Your task to perform on an android device: Open Amazon Image 0: 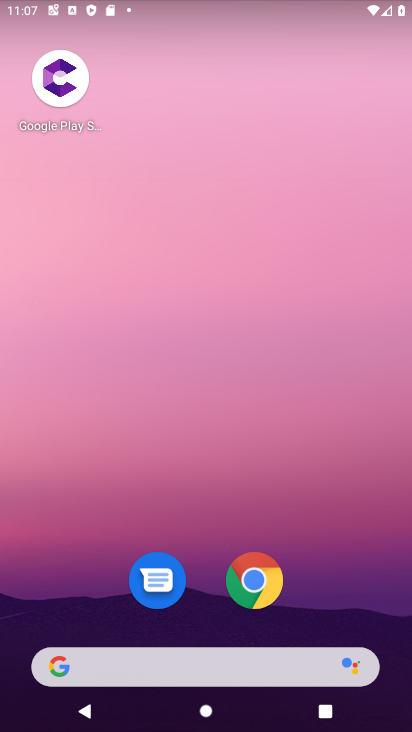
Step 0: drag from (208, 632) to (219, 163)
Your task to perform on an android device: Open Amazon Image 1: 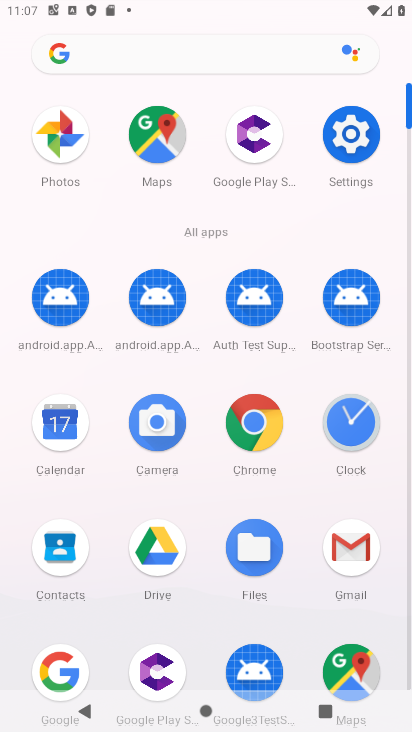
Step 1: click (259, 449)
Your task to perform on an android device: Open Amazon Image 2: 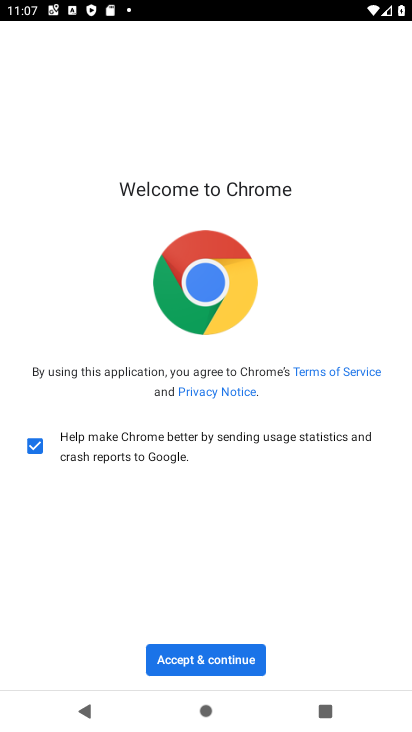
Step 2: click (240, 663)
Your task to perform on an android device: Open Amazon Image 3: 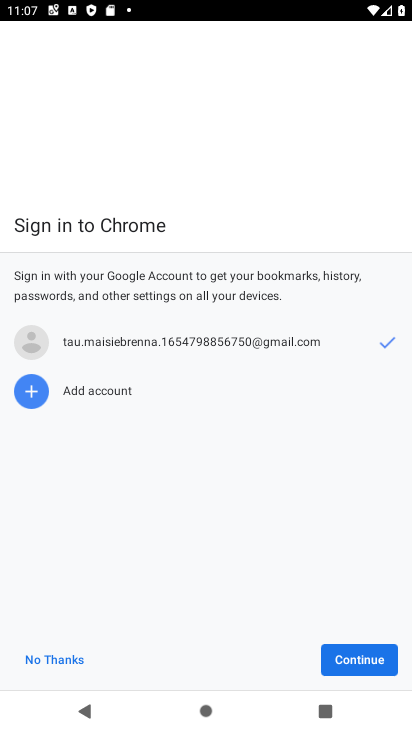
Step 3: click (337, 649)
Your task to perform on an android device: Open Amazon Image 4: 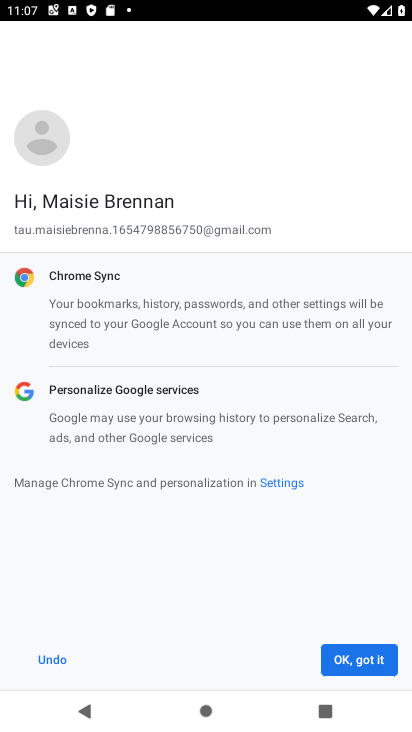
Step 4: click (366, 654)
Your task to perform on an android device: Open Amazon Image 5: 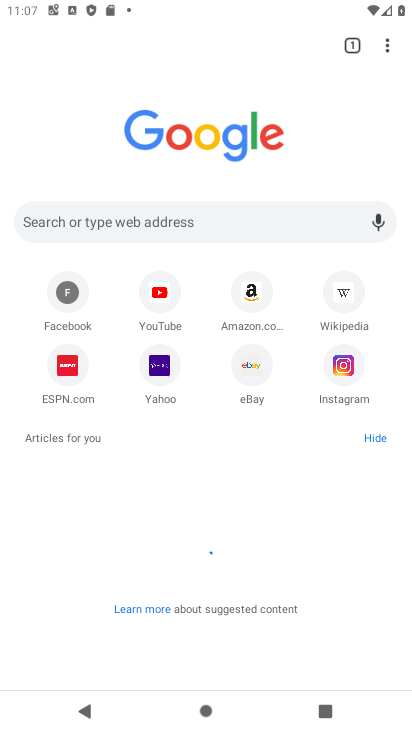
Step 5: click (258, 301)
Your task to perform on an android device: Open Amazon Image 6: 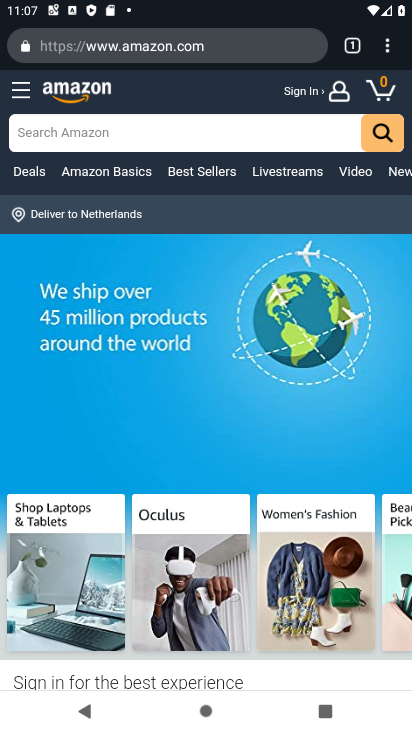
Step 6: task complete